Your task to perform on an android device: open app "Paramount+ | Peak Streaming" (install if not already installed) Image 0: 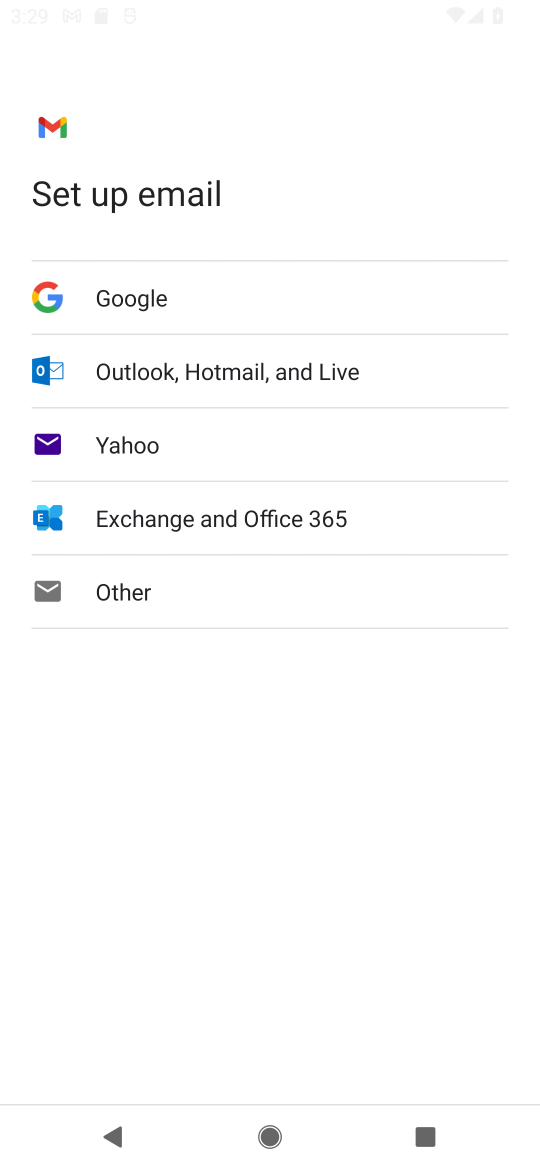
Step 0: press home button
Your task to perform on an android device: open app "Paramount+ | Peak Streaming" (install if not already installed) Image 1: 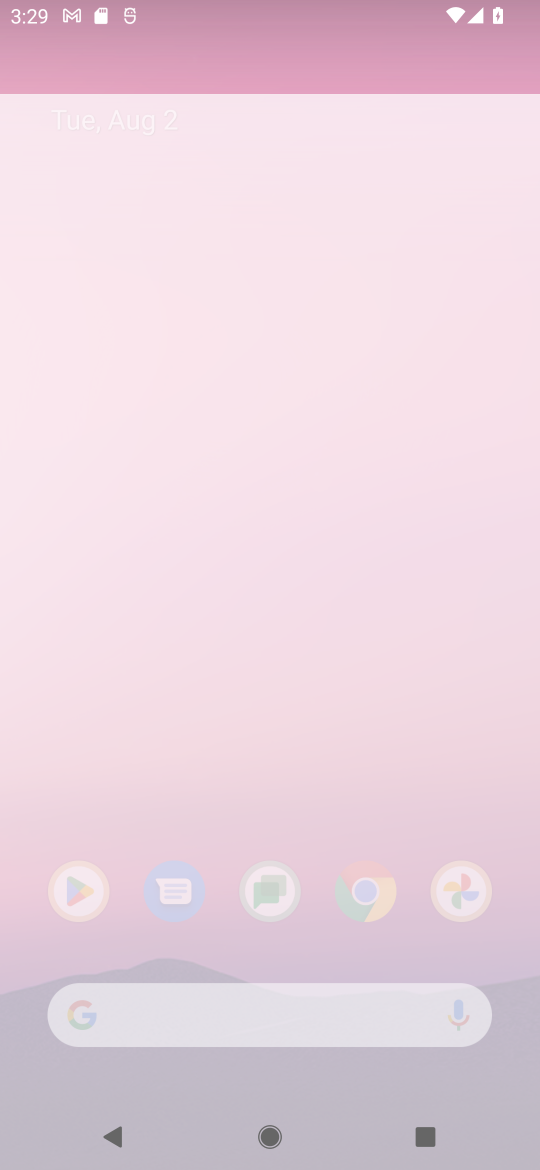
Step 1: press home button
Your task to perform on an android device: open app "Paramount+ | Peak Streaming" (install if not already installed) Image 2: 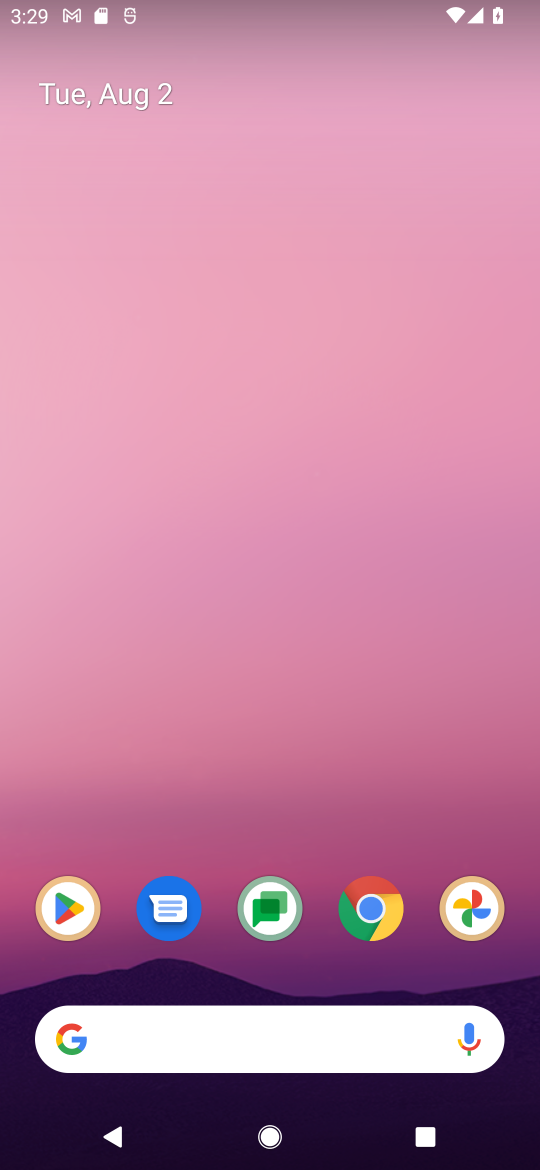
Step 2: click (56, 898)
Your task to perform on an android device: open app "Paramount+ | Peak Streaming" (install if not already installed) Image 3: 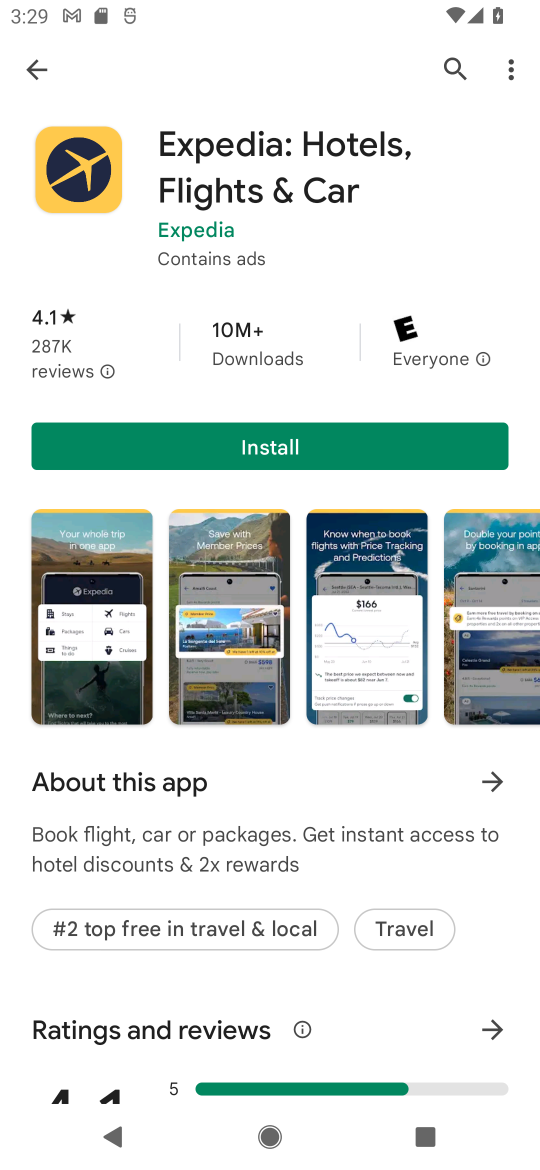
Step 3: click (458, 62)
Your task to perform on an android device: open app "Paramount+ | Peak Streaming" (install if not already installed) Image 4: 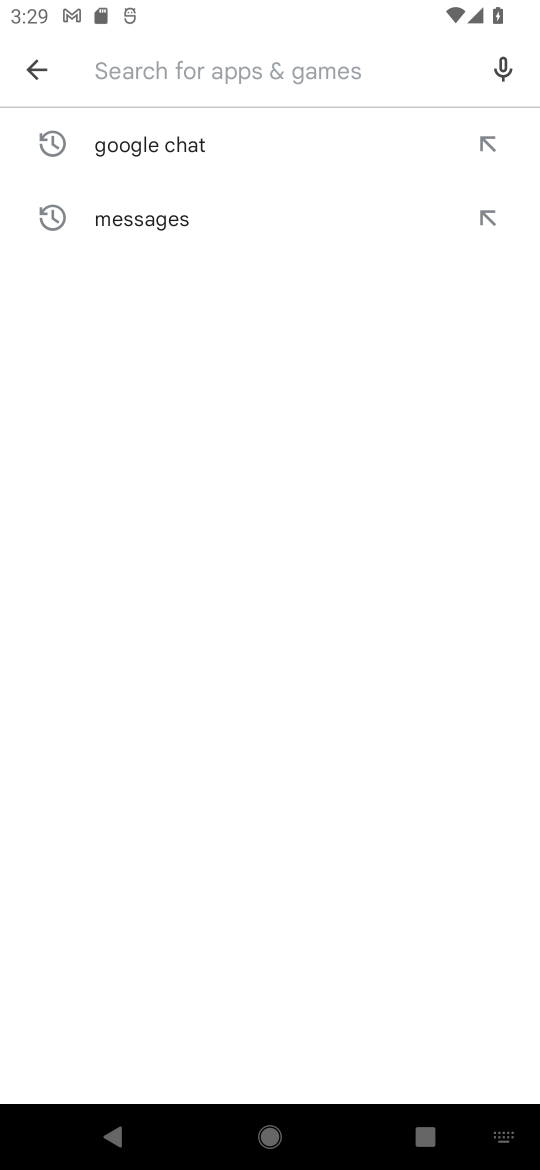
Step 4: type "Paramount+ | Peak Streaming"
Your task to perform on an android device: open app "Paramount+ | Peak Streaming" (install if not already installed) Image 5: 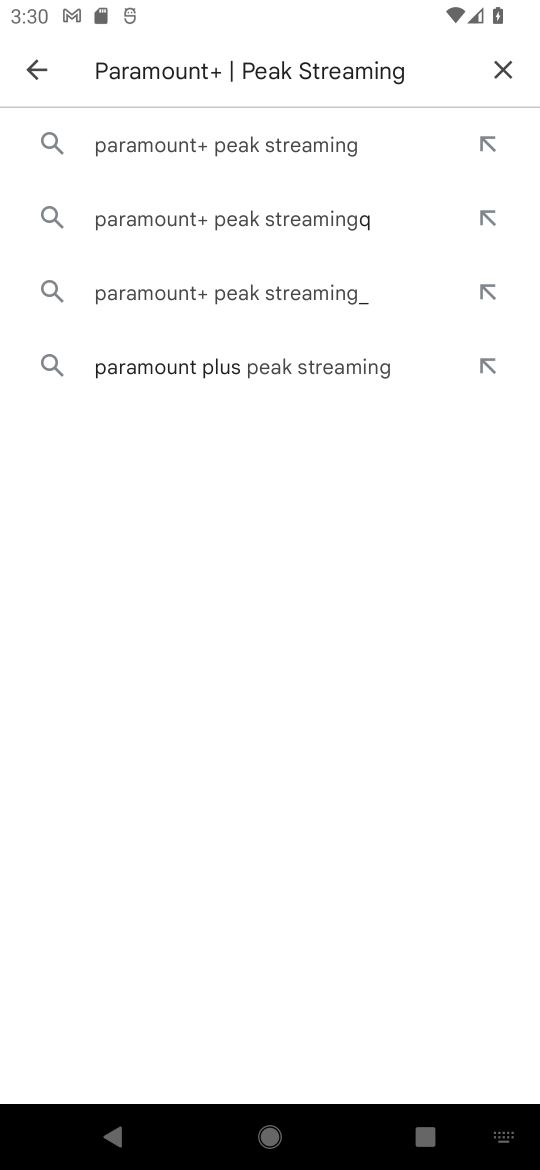
Step 5: click (283, 144)
Your task to perform on an android device: open app "Paramount+ | Peak Streaming" (install if not already installed) Image 6: 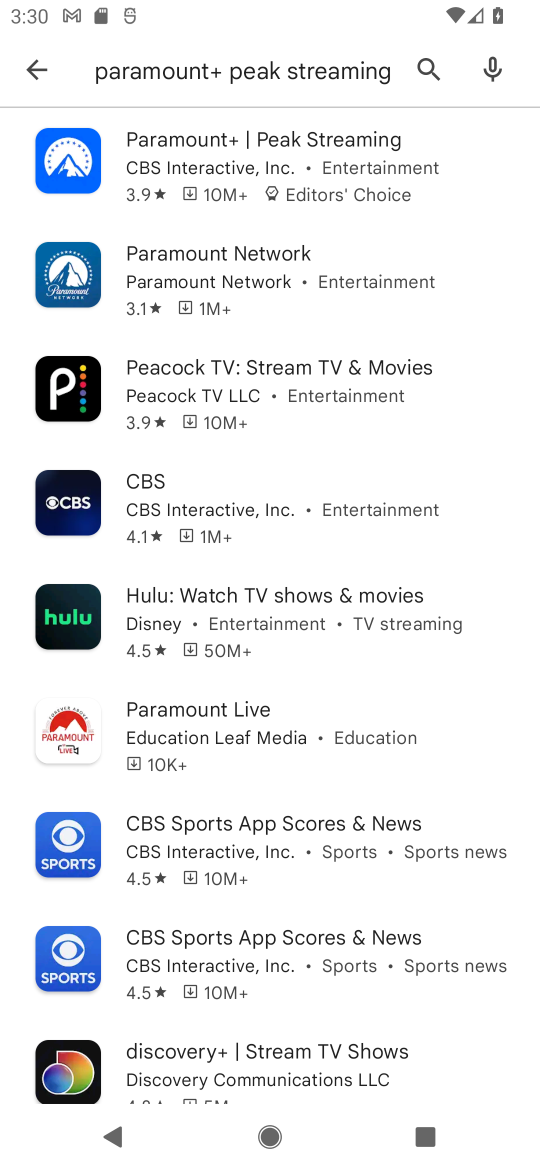
Step 6: click (267, 154)
Your task to perform on an android device: open app "Paramount+ | Peak Streaming" (install if not already installed) Image 7: 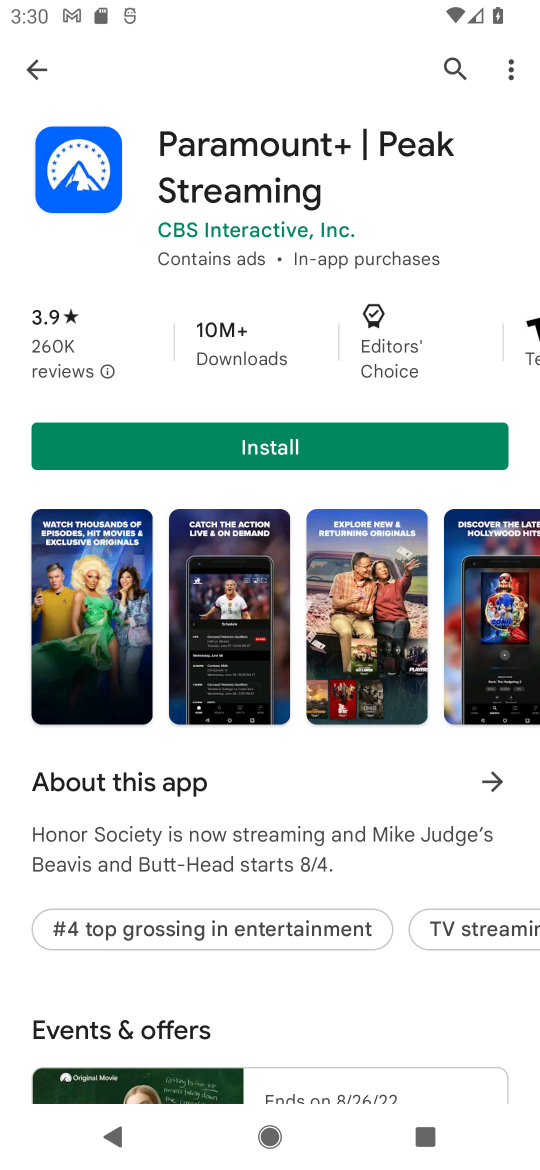
Step 7: click (283, 450)
Your task to perform on an android device: open app "Paramount+ | Peak Streaming" (install if not already installed) Image 8: 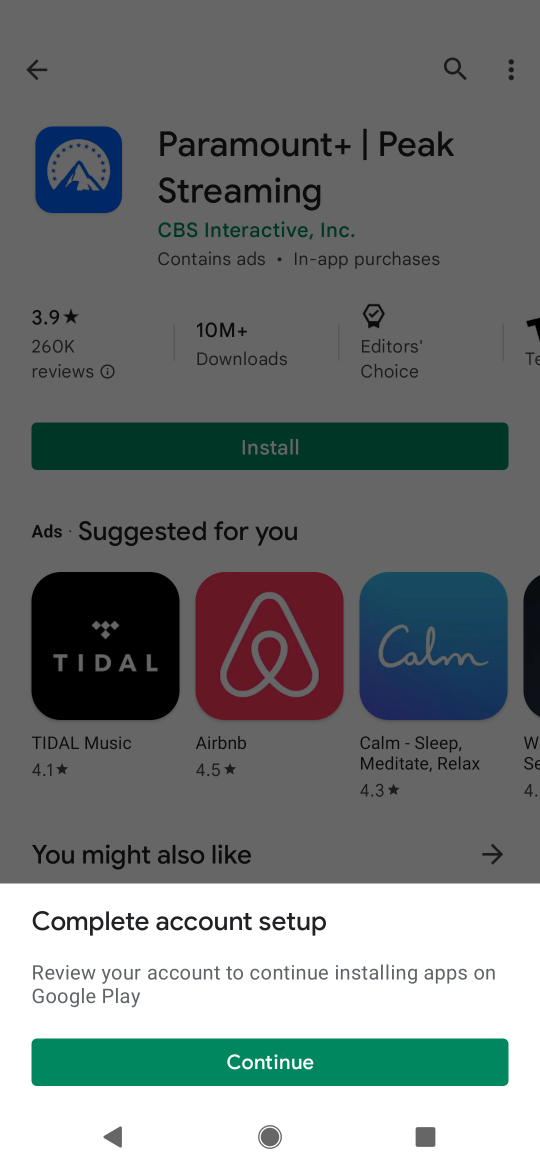
Step 8: click (267, 1064)
Your task to perform on an android device: open app "Paramount+ | Peak Streaming" (install if not already installed) Image 9: 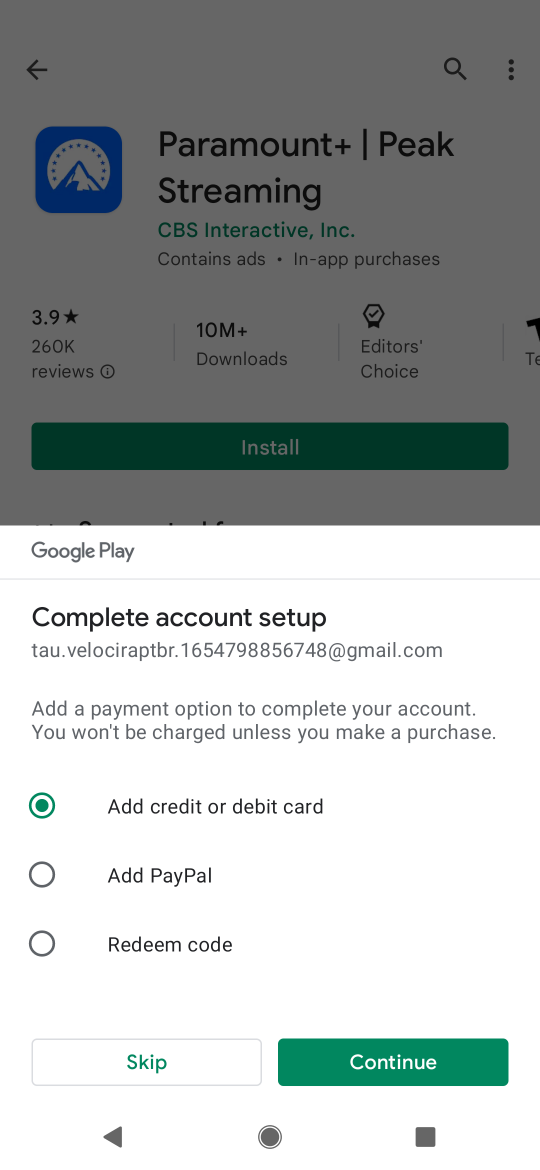
Step 9: click (140, 1059)
Your task to perform on an android device: open app "Paramount+ | Peak Streaming" (install if not already installed) Image 10: 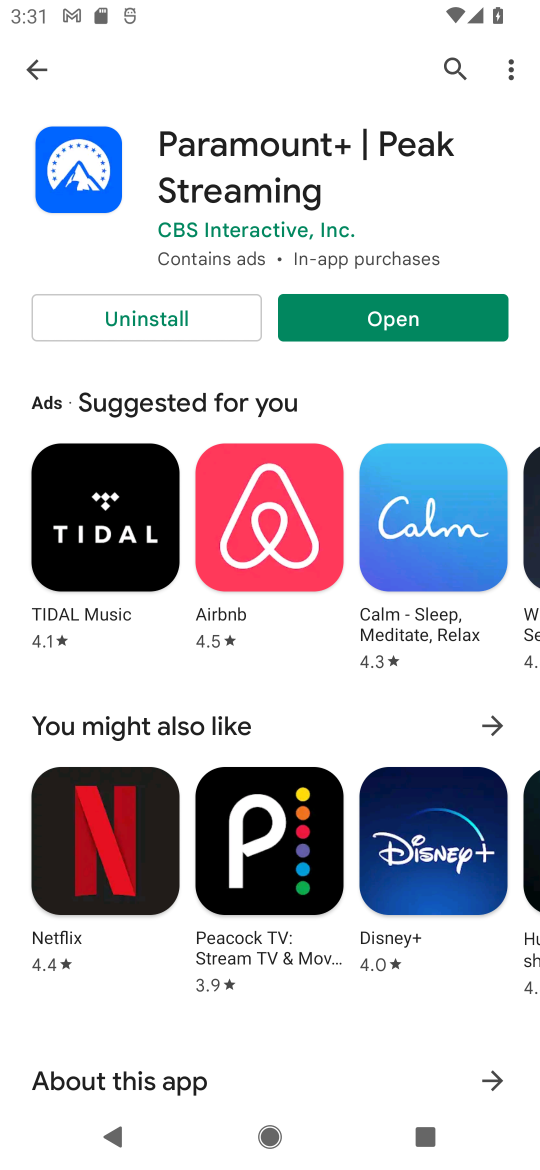
Step 10: click (411, 308)
Your task to perform on an android device: open app "Paramount+ | Peak Streaming" (install if not already installed) Image 11: 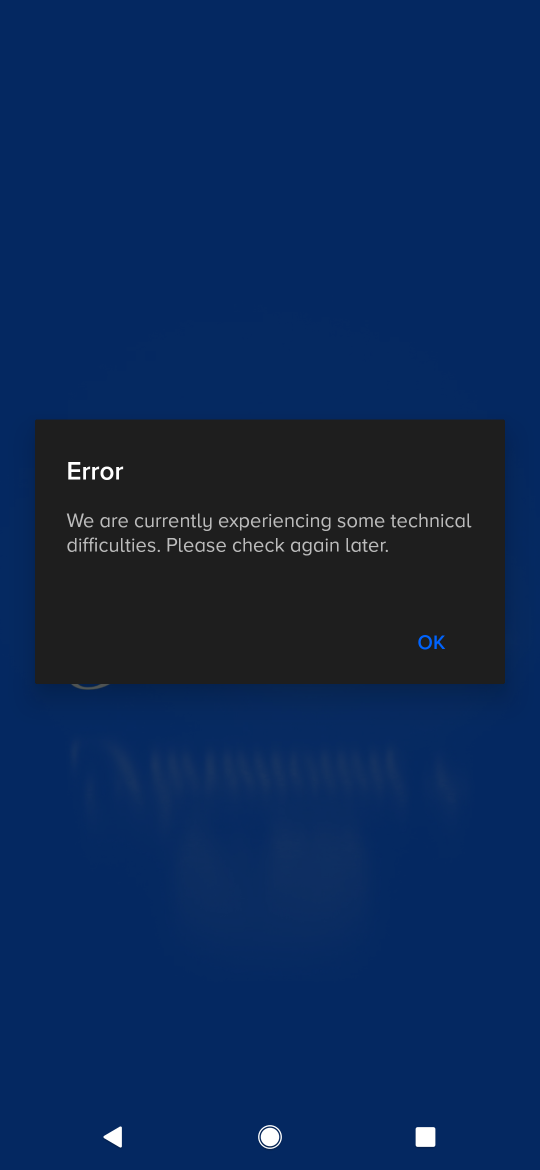
Step 11: click (435, 641)
Your task to perform on an android device: open app "Paramount+ | Peak Streaming" (install if not already installed) Image 12: 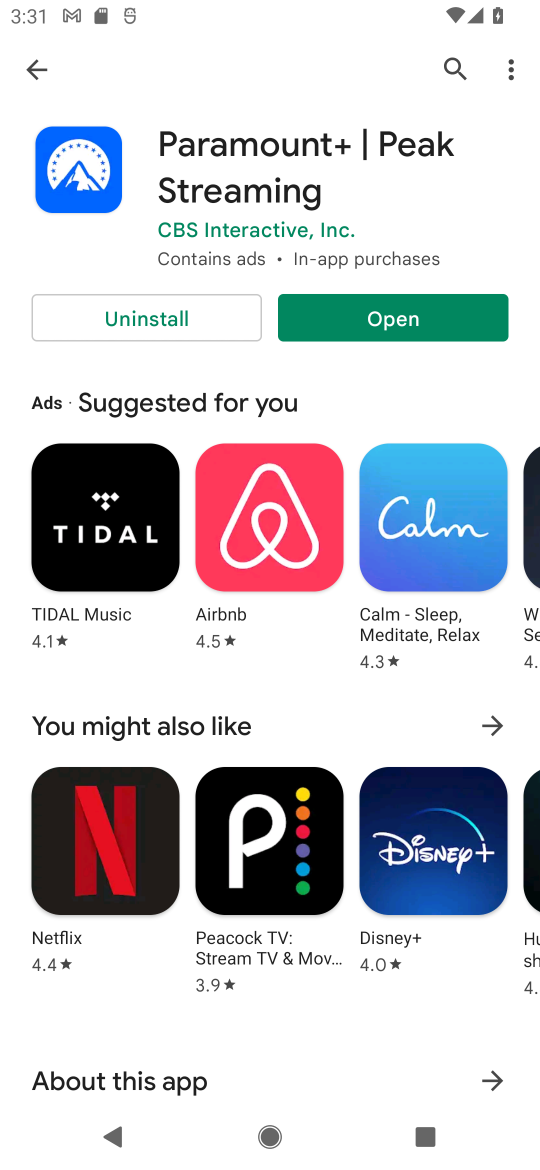
Step 12: click (408, 311)
Your task to perform on an android device: open app "Paramount+ | Peak Streaming" (install if not already installed) Image 13: 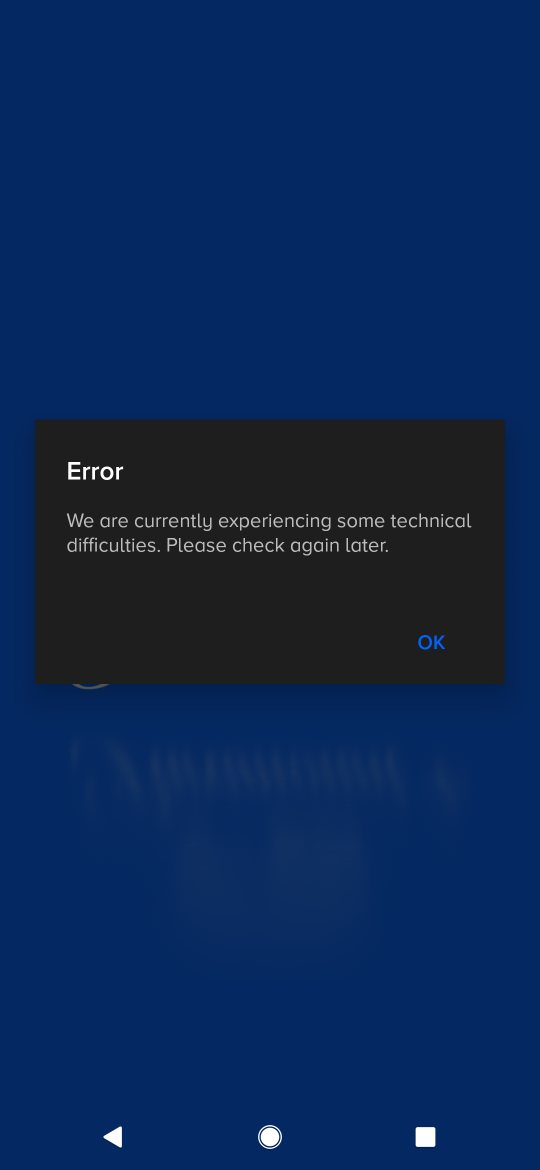
Step 13: task complete